Your task to perform on an android device: Go to location settings Image 0: 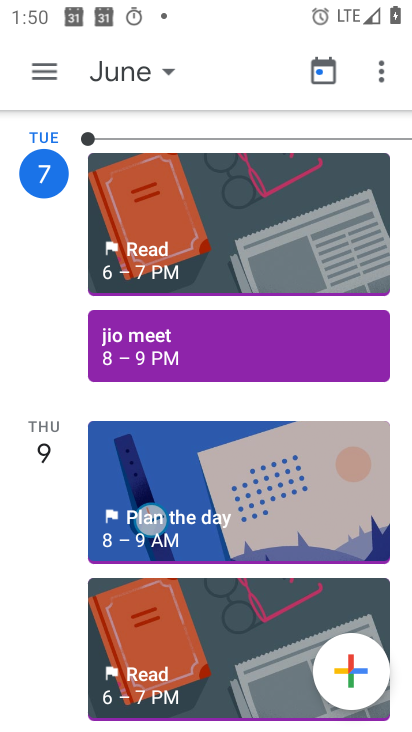
Step 0: press home button
Your task to perform on an android device: Go to location settings Image 1: 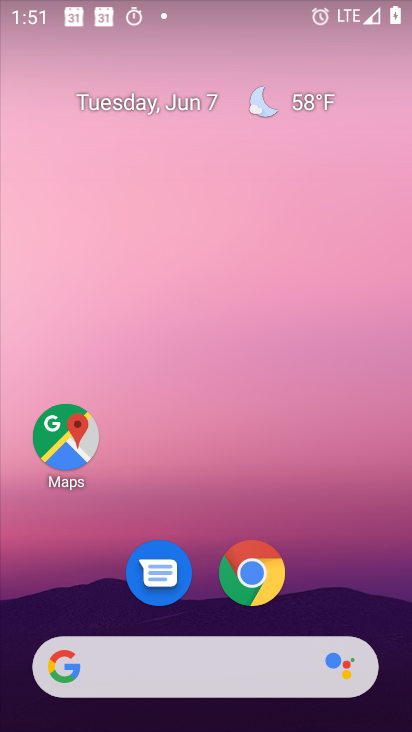
Step 1: drag from (322, 573) to (280, 118)
Your task to perform on an android device: Go to location settings Image 2: 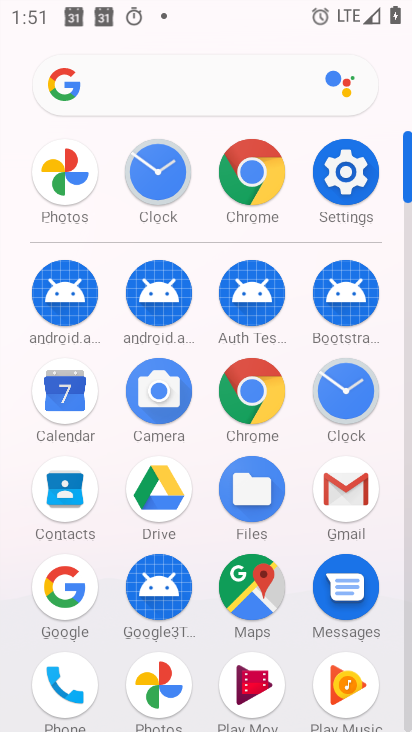
Step 2: click (341, 165)
Your task to perform on an android device: Go to location settings Image 3: 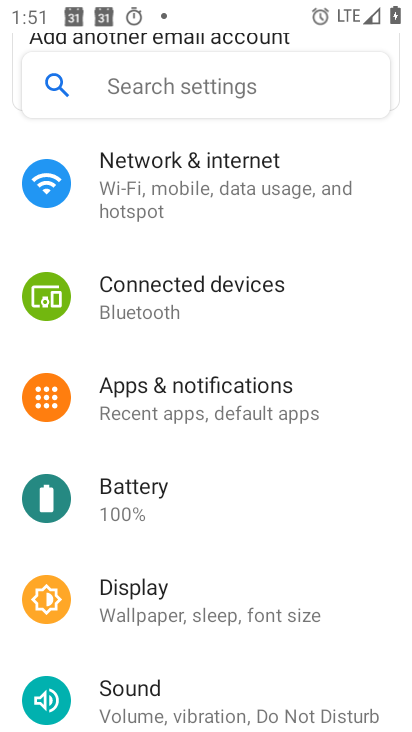
Step 3: drag from (264, 528) to (248, 103)
Your task to perform on an android device: Go to location settings Image 4: 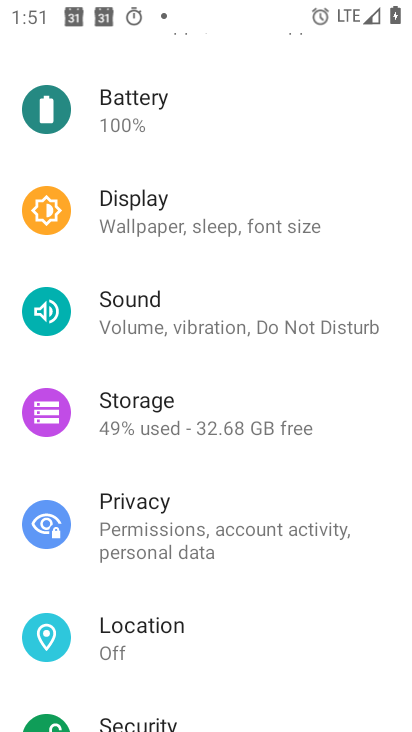
Step 4: click (123, 628)
Your task to perform on an android device: Go to location settings Image 5: 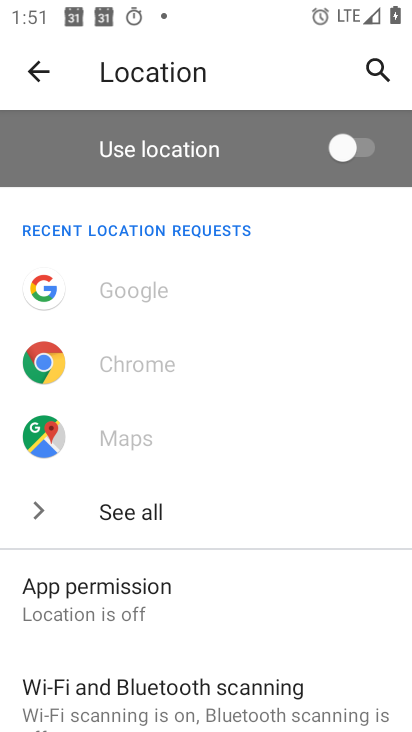
Step 5: task complete